Your task to perform on an android device: Open the Play Movies app and select the watchlist tab. Image 0: 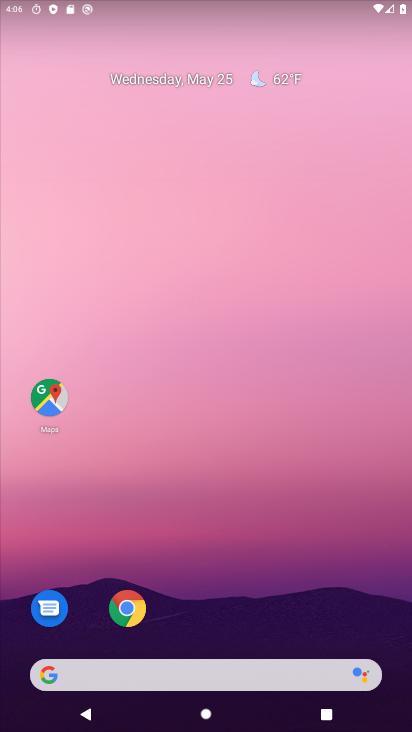
Step 0: drag from (281, 588) to (280, 112)
Your task to perform on an android device: Open the Play Movies app and select the watchlist tab. Image 1: 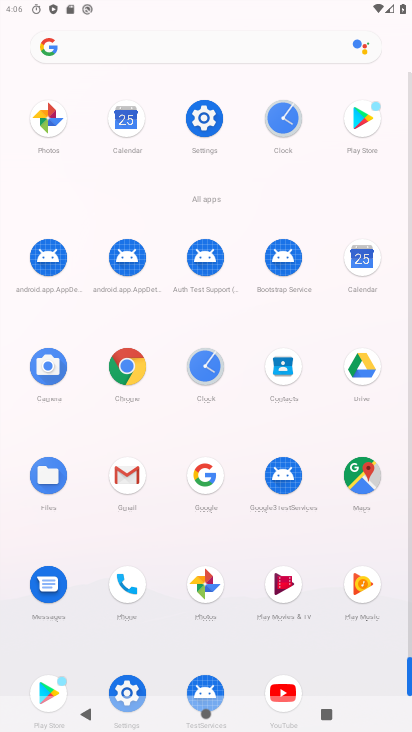
Step 1: drag from (239, 542) to (273, 329)
Your task to perform on an android device: Open the Play Movies app and select the watchlist tab. Image 2: 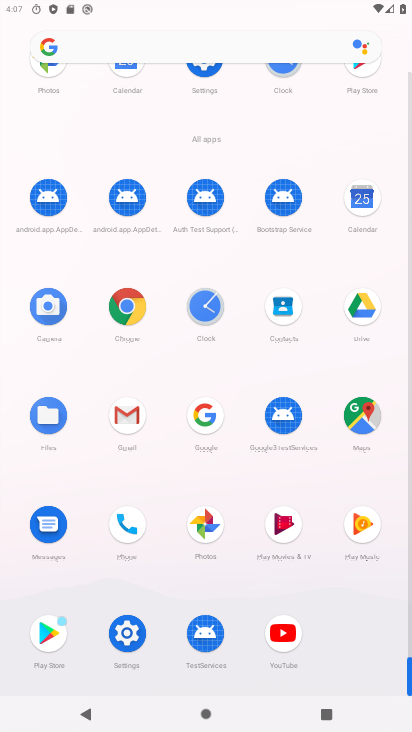
Step 2: click (285, 522)
Your task to perform on an android device: Open the Play Movies app and select the watchlist tab. Image 3: 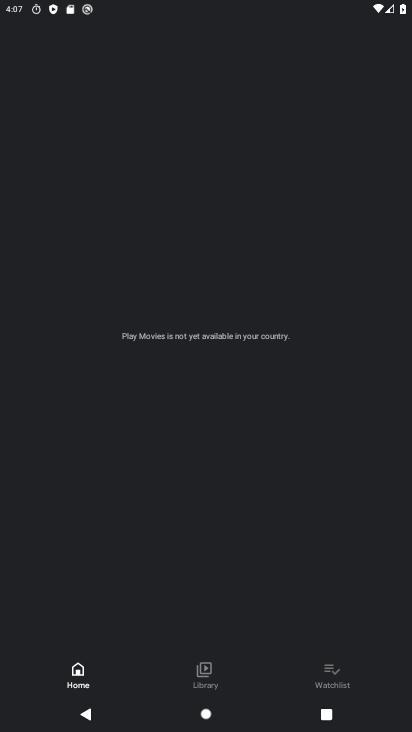
Step 3: click (331, 674)
Your task to perform on an android device: Open the Play Movies app and select the watchlist tab. Image 4: 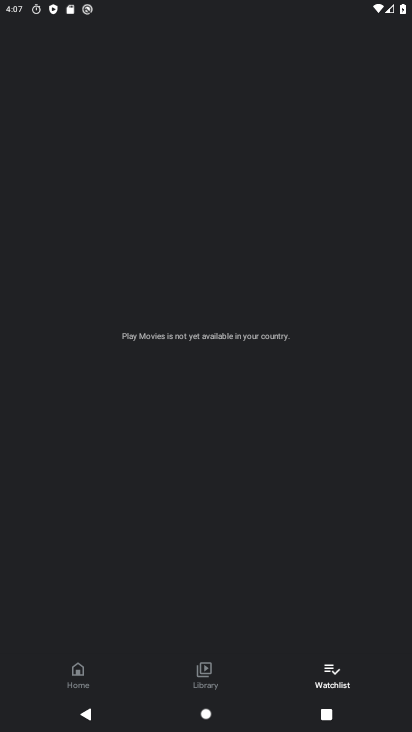
Step 4: task complete